Your task to perform on an android device: all mails in gmail Image 0: 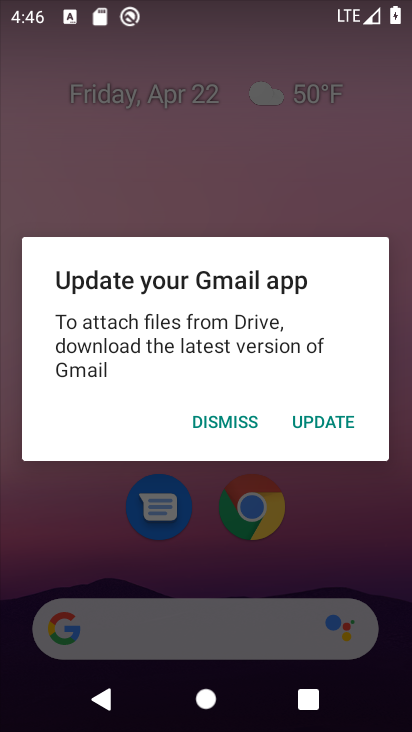
Step 0: press home button
Your task to perform on an android device: all mails in gmail Image 1: 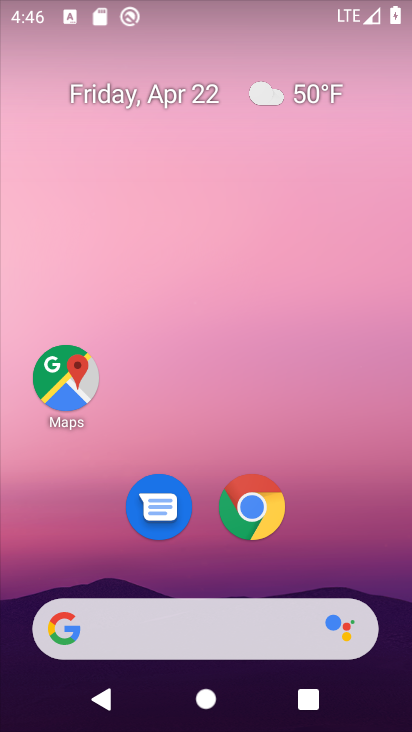
Step 1: drag from (375, 582) to (269, 161)
Your task to perform on an android device: all mails in gmail Image 2: 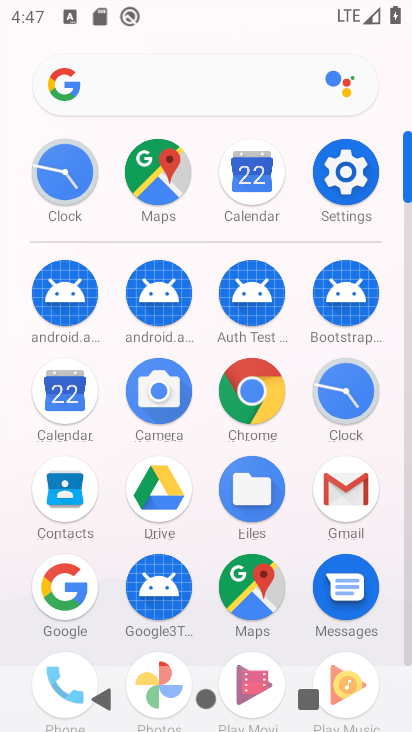
Step 2: click (344, 495)
Your task to perform on an android device: all mails in gmail Image 3: 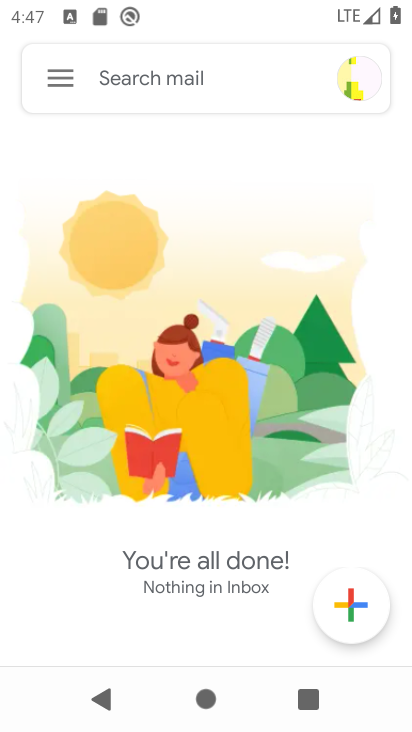
Step 3: click (56, 78)
Your task to perform on an android device: all mails in gmail Image 4: 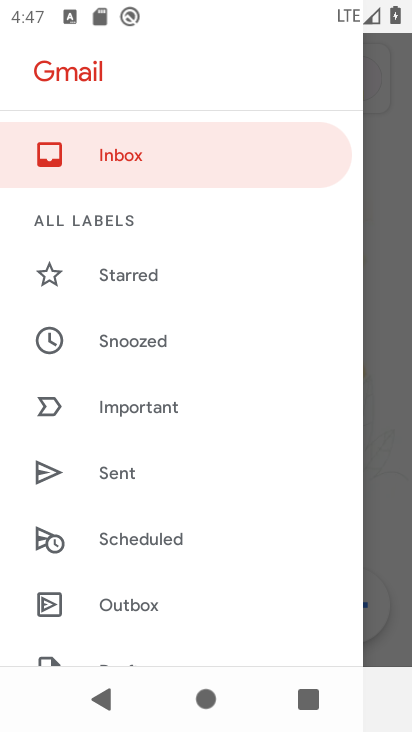
Step 4: drag from (236, 596) to (239, 244)
Your task to perform on an android device: all mails in gmail Image 5: 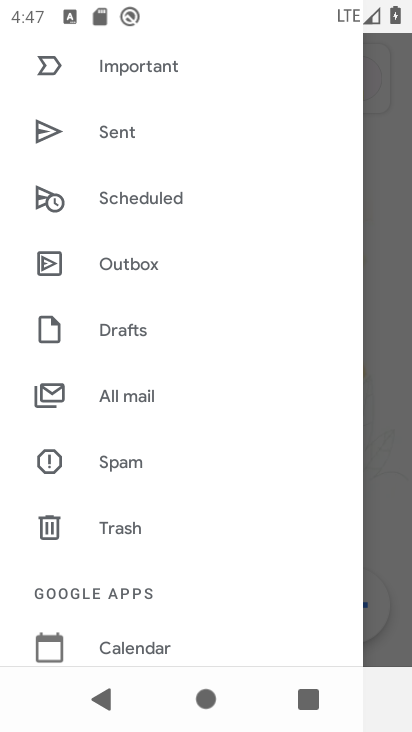
Step 5: click (128, 393)
Your task to perform on an android device: all mails in gmail Image 6: 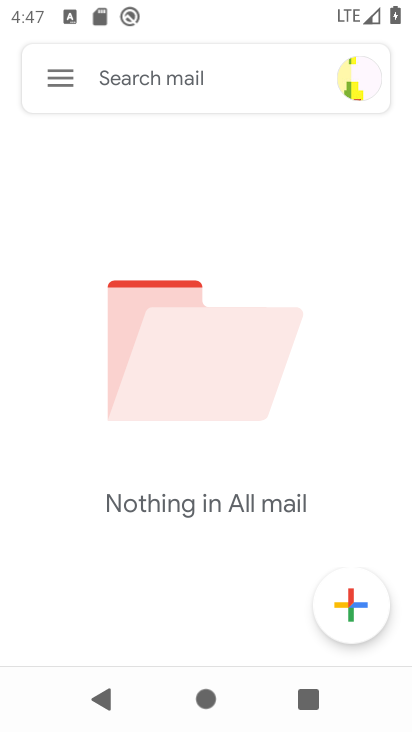
Step 6: task complete